Your task to perform on an android device: toggle pop-ups in chrome Image 0: 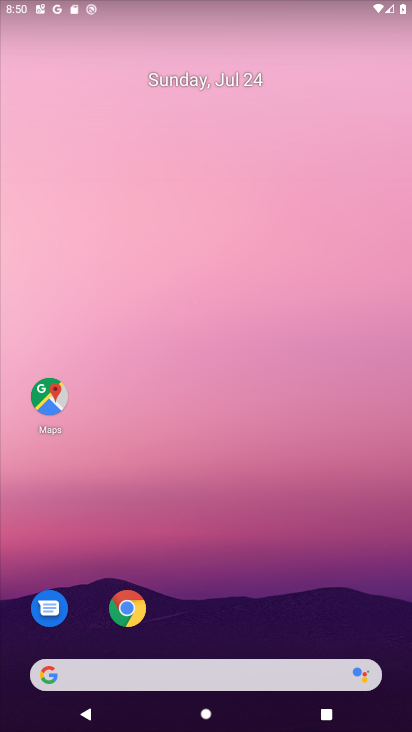
Step 0: click (127, 590)
Your task to perform on an android device: toggle pop-ups in chrome Image 1: 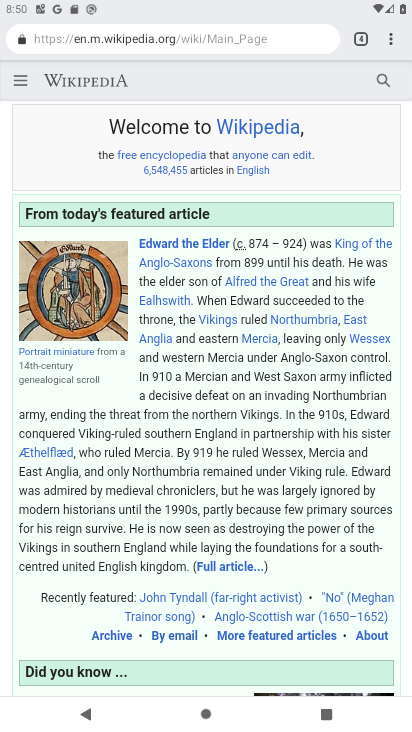
Step 1: click (402, 42)
Your task to perform on an android device: toggle pop-ups in chrome Image 2: 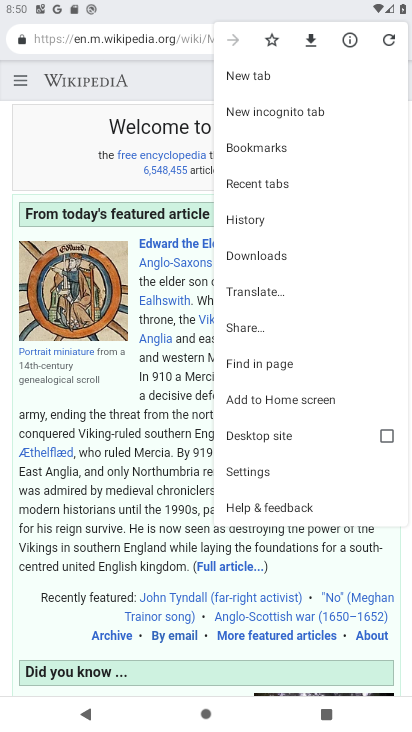
Step 2: click (235, 476)
Your task to perform on an android device: toggle pop-ups in chrome Image 3: 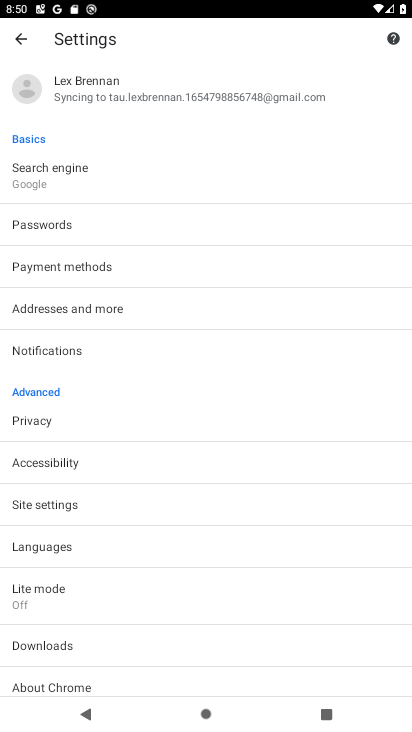
Step 3: click (195, 502)
Your task to perform on an android device: toggle pop-ups in chrome Image 4: 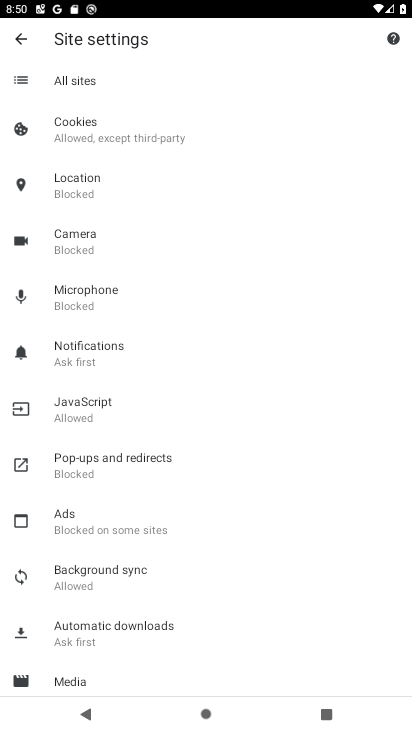
Step 4: click (133, 476)
Your task to perform on an android device: toggle pop-ups in chrome Image 5: 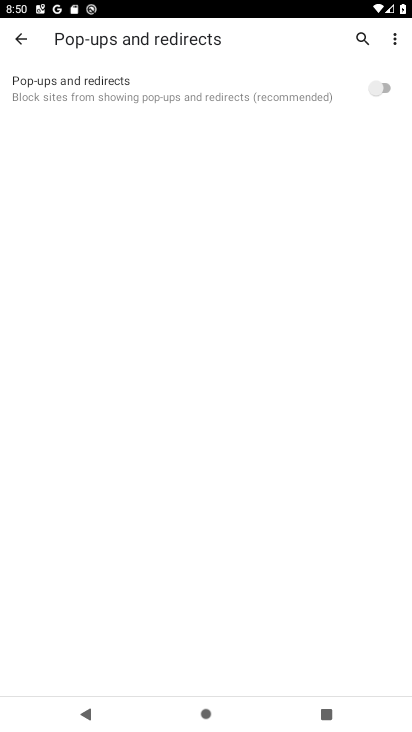
Step 5: click (385, 88)
Your task to perform on an android device: toggle pop-ups in chrome Image 6: 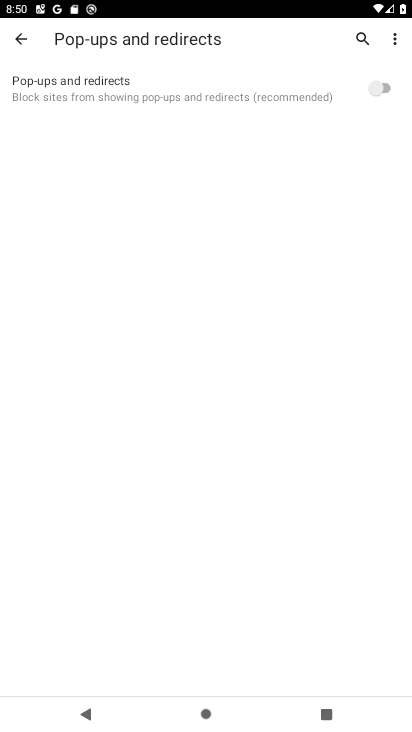
Step 6: click (385, 88)
Your task to perform on an android device: toggle pop-ups in chrome Image 7: 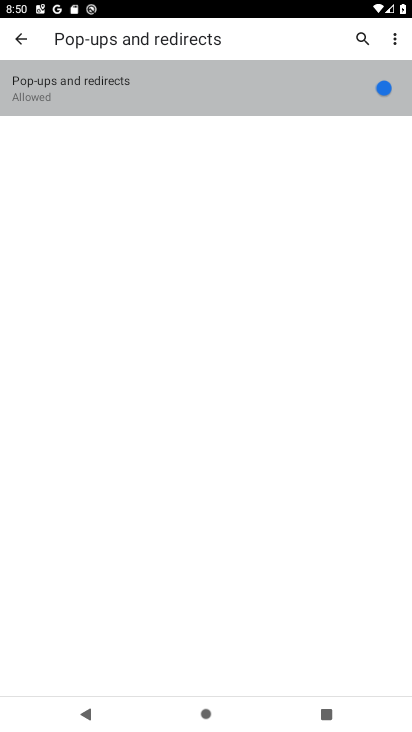
Step 7: click (385, 88)
Your task to perform on an android device: toggle pop-ups in chrome Image 8: 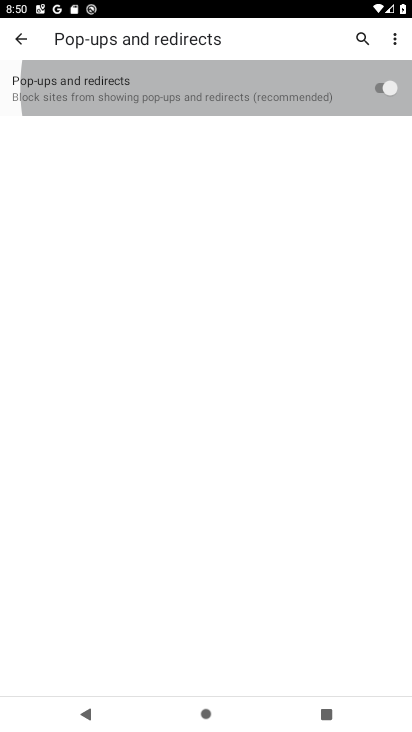
Step 8: click (385, 88)
Your task to perform on an android device: toggle pop-ups in chrome Image 9: 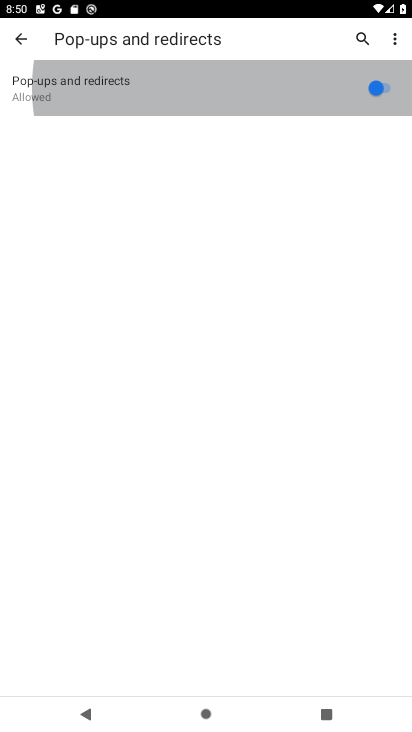
Step 9: click (385, 88)
Your task to perform on an android device: toggle pop-ups in chrome Image 10: 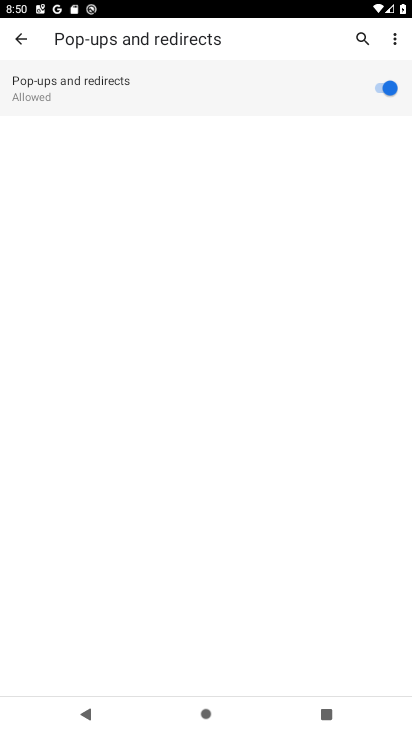
Step 10: click (385, 88)
Your task to perform on an android device: toggle pop-ups in chrome Image 11: 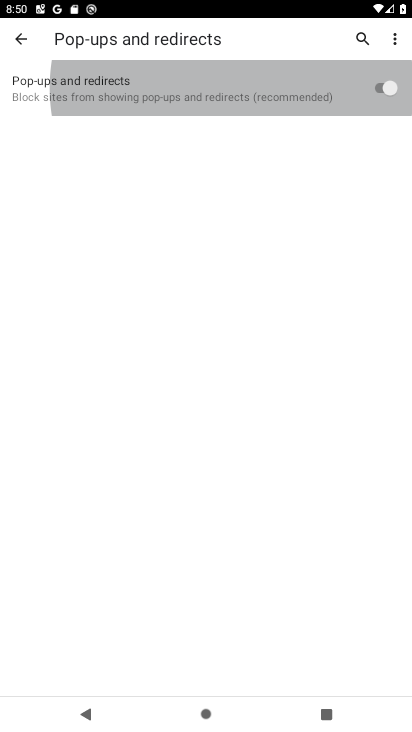
Step 11: click (385, 88)
Your task to perform on an android device: toggle pop-ups in chrome Image 12: 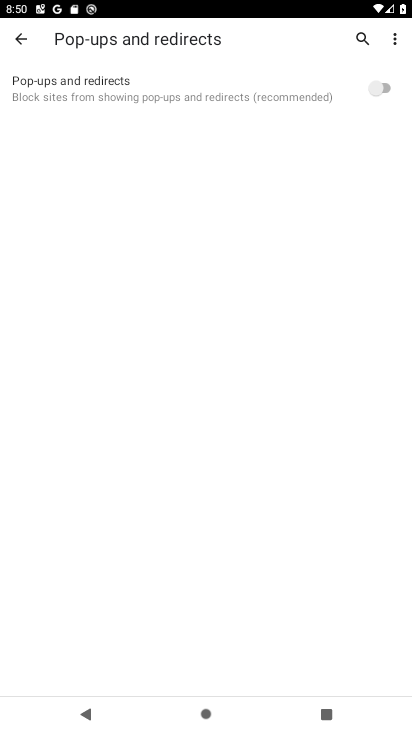
Step 12: task complete